Your task to perform on an android device: Show me productivity apps on the Play Store Image 0: 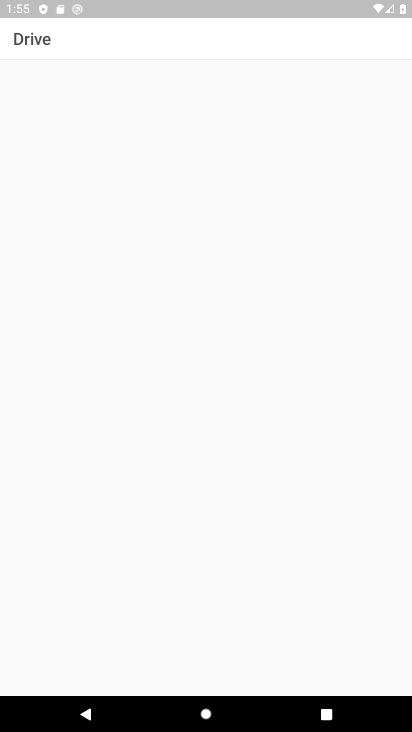
Step 0: press home button
Your task to perform on an android device: Show me productivity apps on the Play Store Image 1: 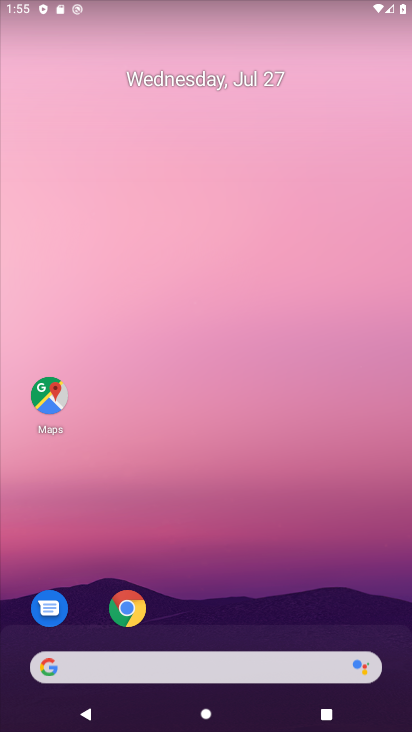
Step 1: drag from (274, 606) to (213, 192)
Your task to perform on an android device: Show me productivity apps on the Play Store Image 2: 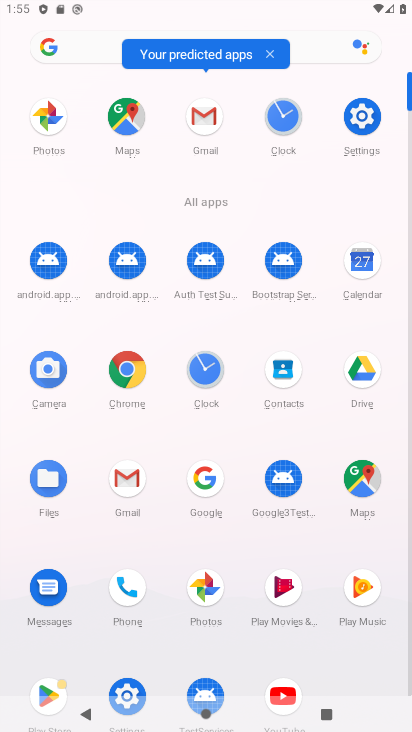
Step 2: click (44, 684)
Your task to perform on an android device: Show me productivity apps on the Play Store Image 3: 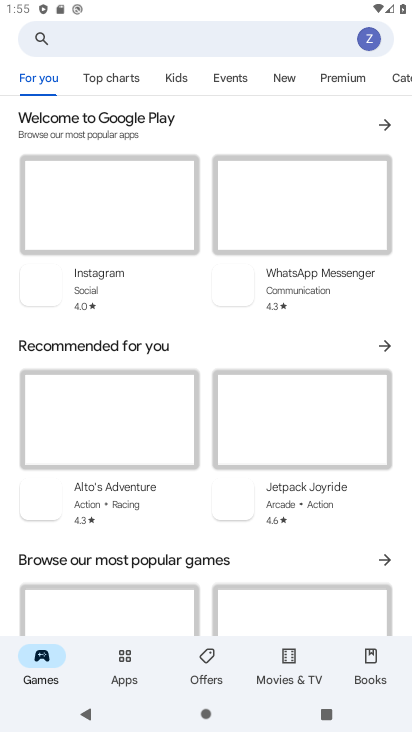
Step 3: task complete